Your task to perform on an android device: toggle priority inbox in the gmail app Image 0: 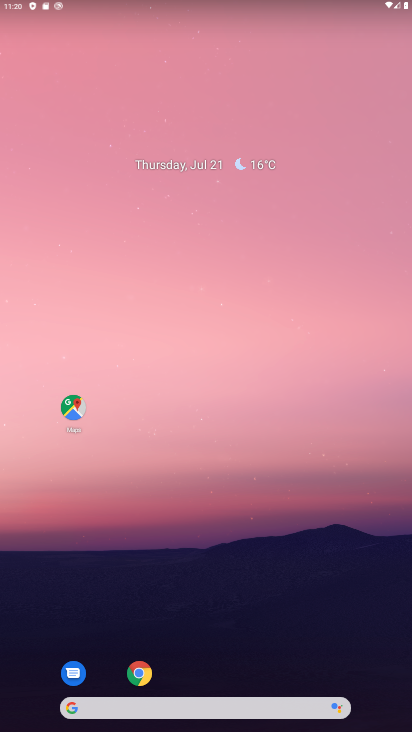
Step 0: drag from (294, 648) to (249, 3)
Your task to perform on an android device: toggle priority inbox in the gmail app Image 1: 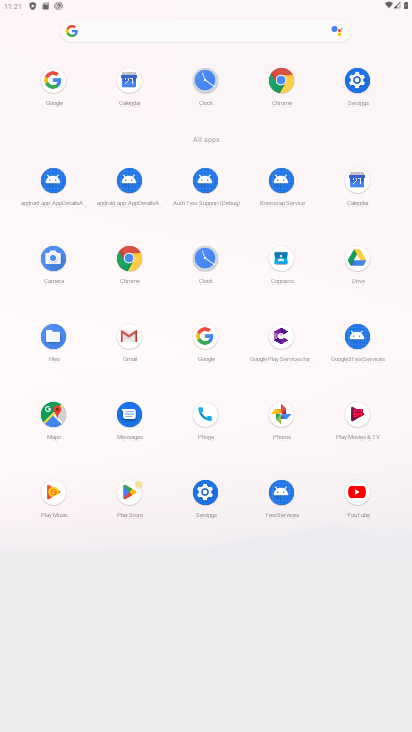
Step 1: click (131, 329)
Your task to perform on an android device: toggle priority inbox in the gmail app Image 2: 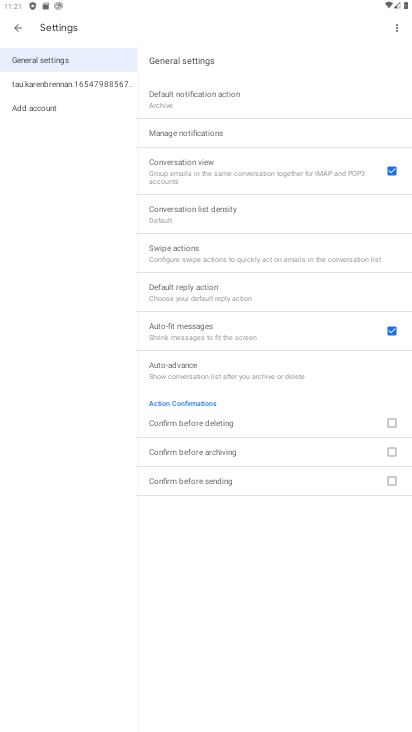
Step 2: press home button
Your task to perform on an android device: toggle priority inbox in the gmail app Image 3: 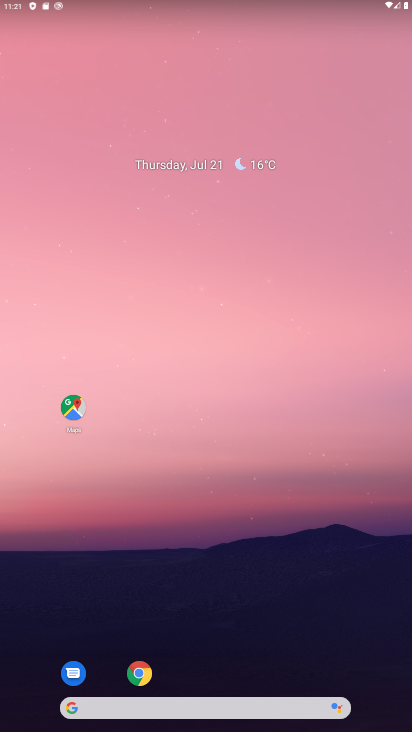
Step 3: drag from (209, 626) to (172, 0)
Your task to perform on an android device: toggle priority inbox in the gmail app Image 4: 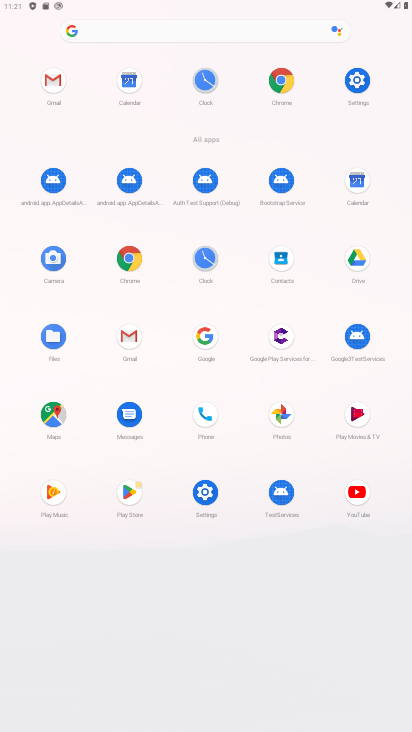
Step 4: click (50, 87)
Your task to perform on an android device: toggle priority inbox in the gmail app Image 5: 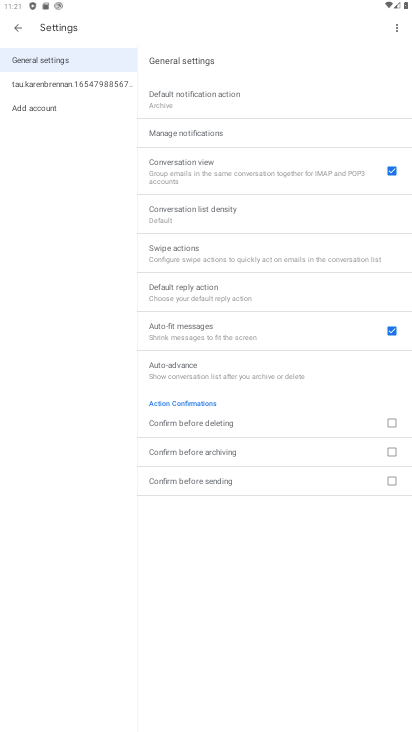
Step 5: click (54, 85)
Your task to perform on an android device: toggle priority inbox in the gmail app Image 6: 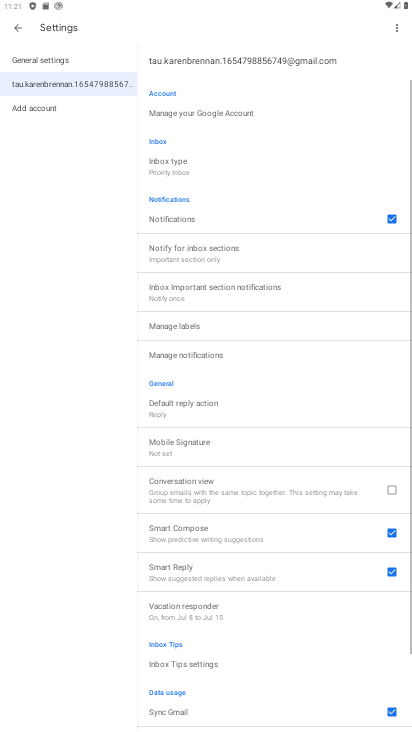
Step 6: click (188, 165)
Your task to perform on an android device: toggle priority inbox in the gmail app Image 7: 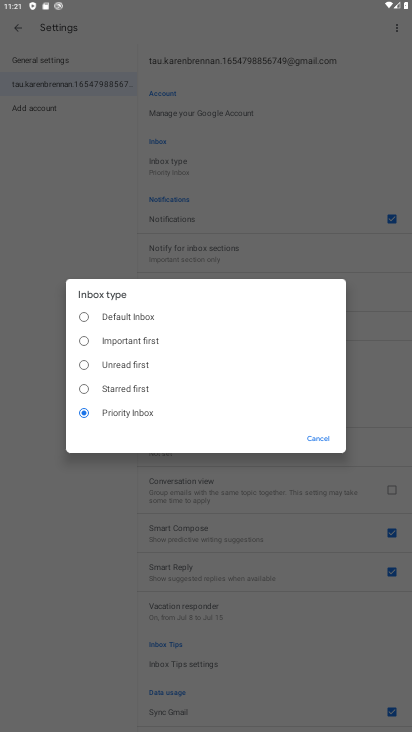
Step 7: click (94, 314)
Your task to perform on an android device: toggle priority inbox in the gmail app Image 8: 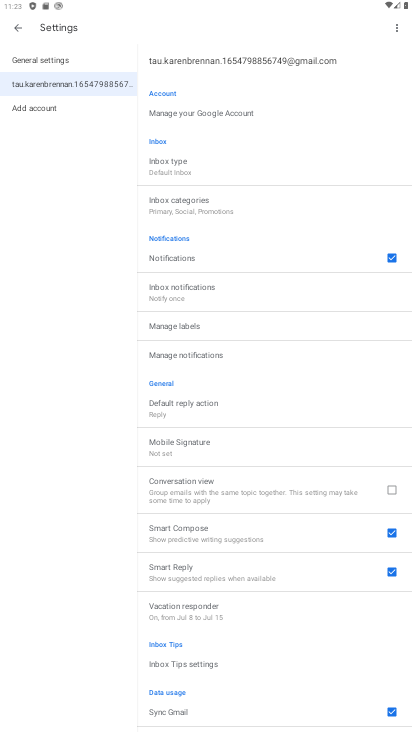
Step 8: click (180, 167)
Your task to perform on an android device: toggle priority inbox in the gmail app Image 9: 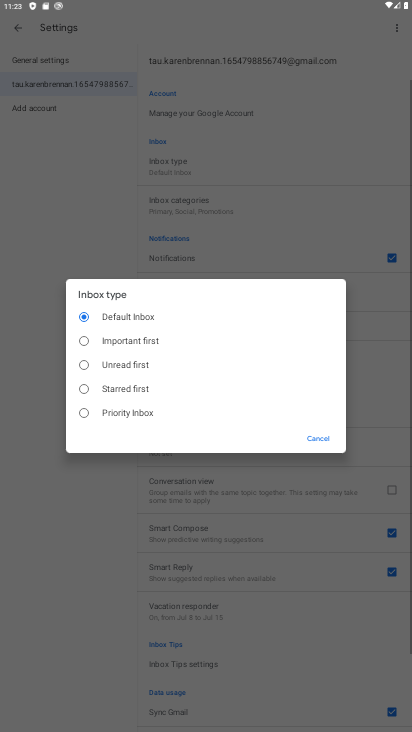
Step 9: task complete